Your task to perform on an android device: see creations saved in the google photos Image 0: 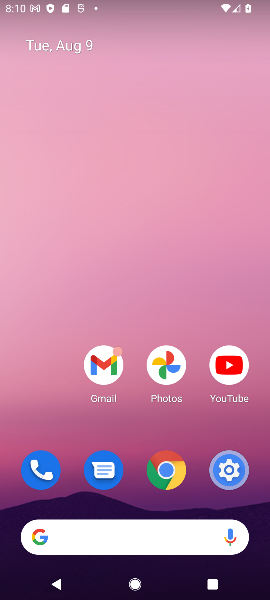
Step 0: click (173, 382)
Your task to perform on an android device: see creations saved in the google photos Image 1: 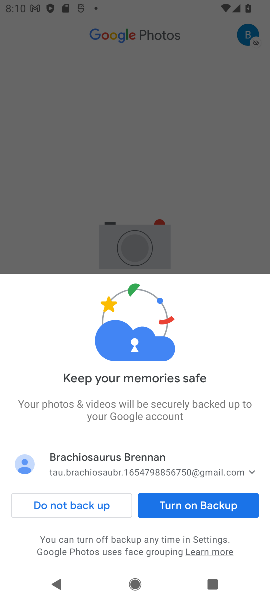
Step 1: click (88, 510)
Your task to perform on an android device: see creations saved in the google photos Image 2: 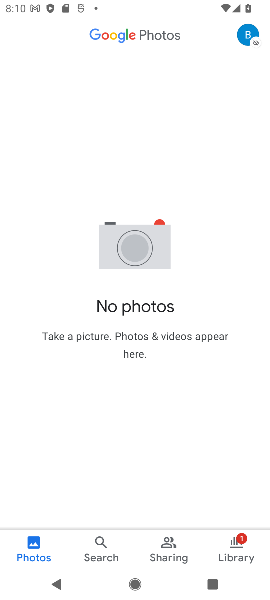
Step 2: click (103, 553)
Your task to perform on an android device: see creations saved in the google photos Image 3: 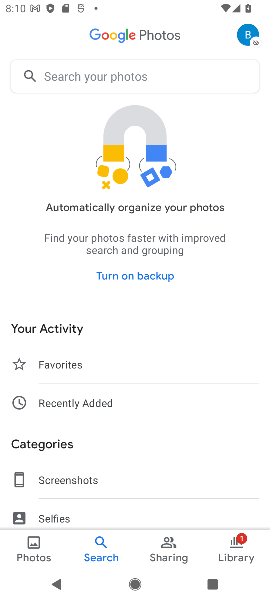
Step 3: drag from (107, 486) to (123, 213)
Your task to perform on an android device: see creations saved in the google photos Image 4: 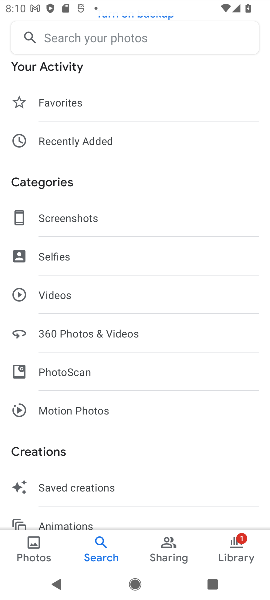
Step 4: click (103, 483)
Your task to perform on an android device: see creations saved in the google photos Image 5: 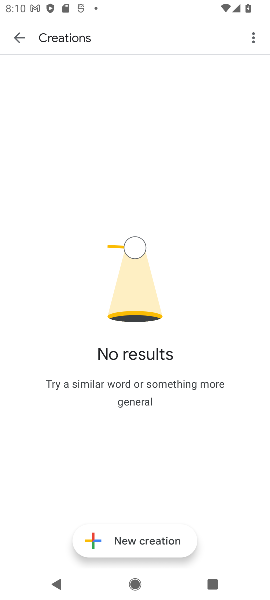
Step 5: task complete